Your task to perform on an android device: Go to ESPN.com Image 0: 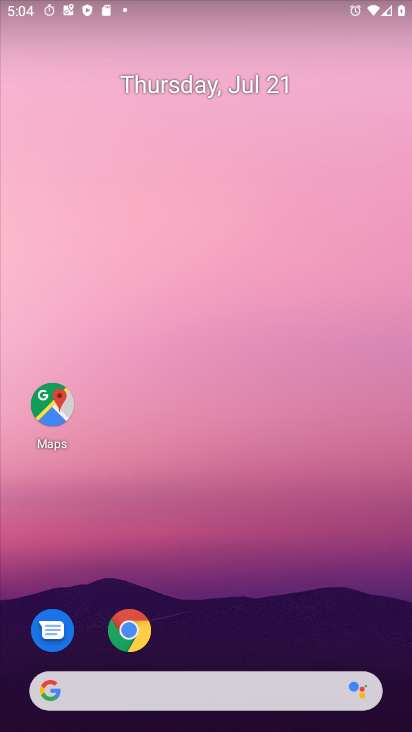
Step 0: click (131, 629)
Your task to perform on an android device: Go to ESPN.com Image 1: 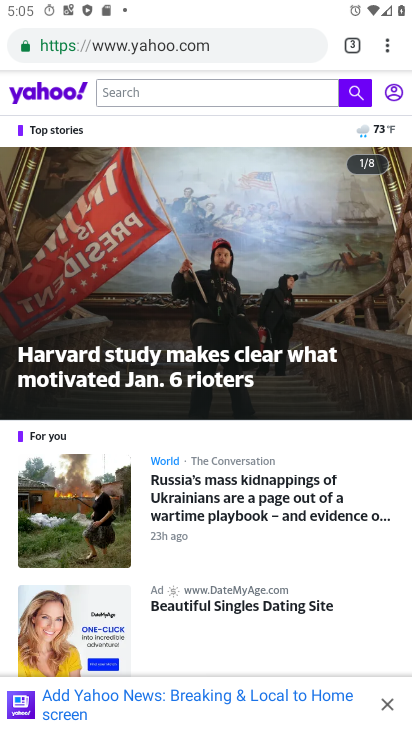
Step 1: click (254, 42)
Your task to perform on an android device: Go to ESPN.com Image 2: 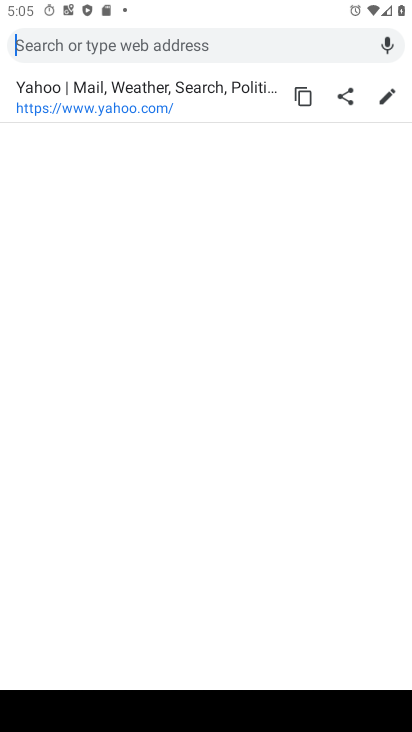
Step 2: type "ESPN.com"
Your task to perform on an android device: Go to ESPN.com Image 3: 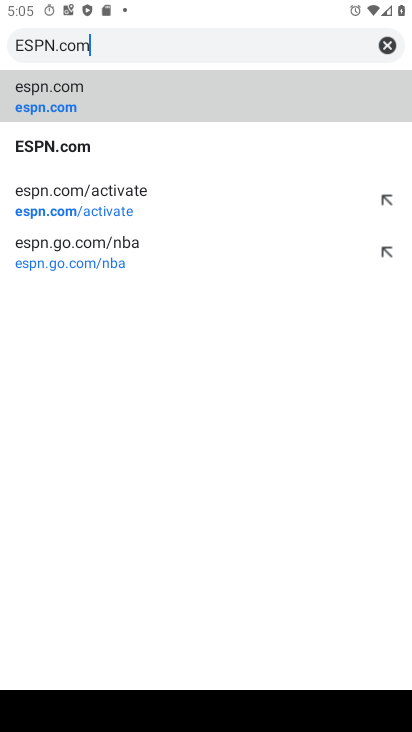
Step 3: click (61, 147)
Your task to perform on an android device: Go to ESPN.com Image 4: 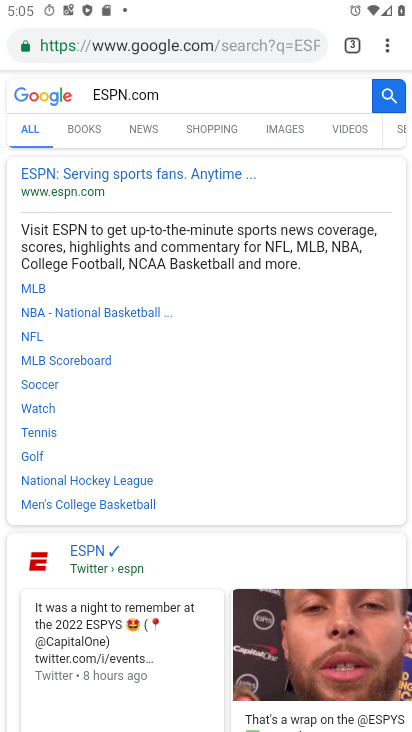
Step 4: click (117, 169)
Your task to perform on an android device: Go to ESPN.com Image 5: 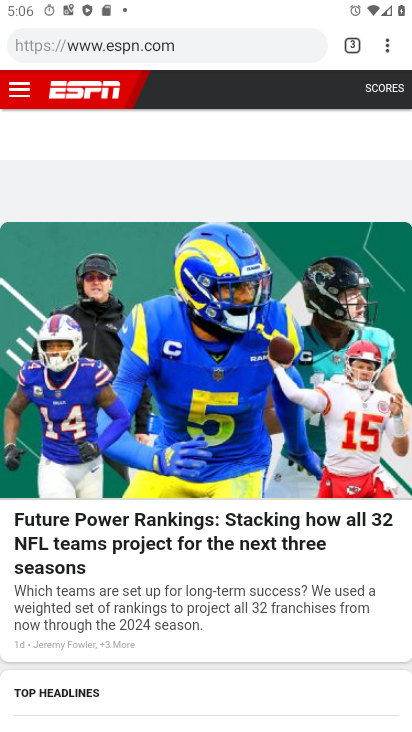
Step 5: task complete